Your task to perform on an android device: turn on location history Image 0: 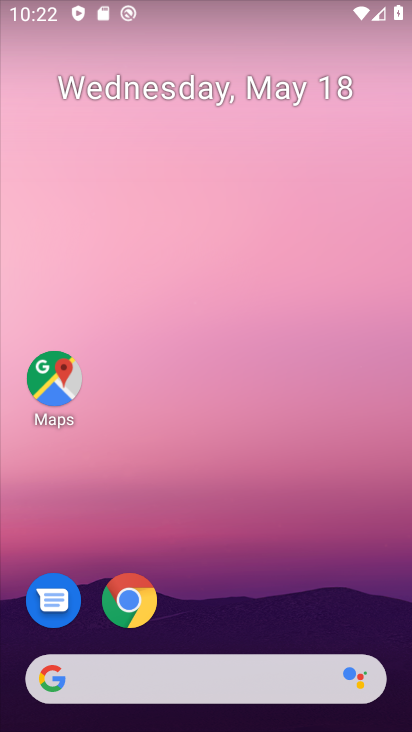
Step 0: drag from (348, 590) to (357, 87)
Your task to perform on an android device: turn on location history Image 1: 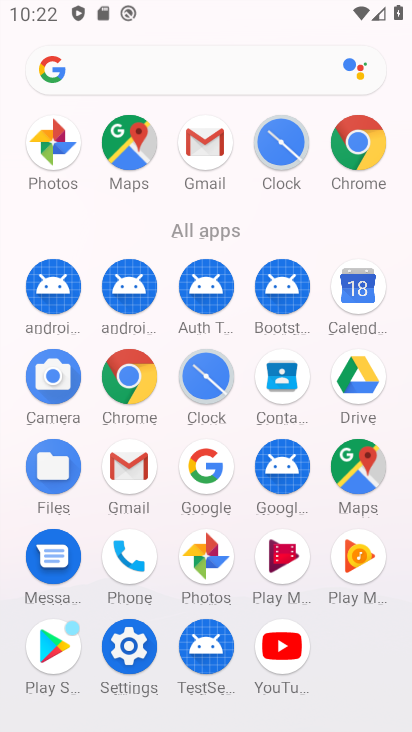
Step 1: click (129, 651)
Your task to perform on an android device: turn on location history Image 2: 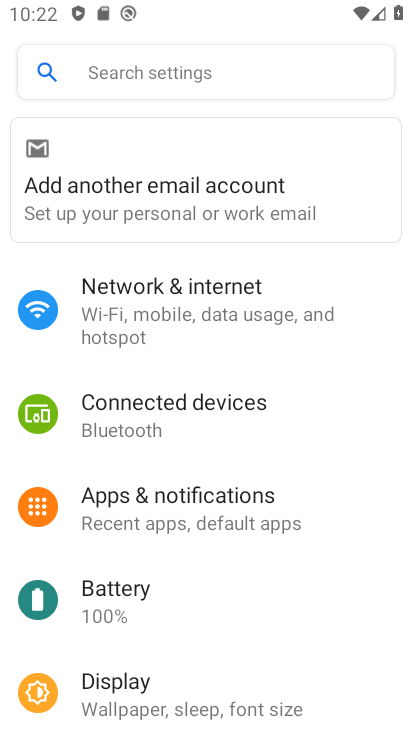
Step 2: drag from (270, 606) to (247, 168)
Your task to perform on an android device: turn on location history Image 3: 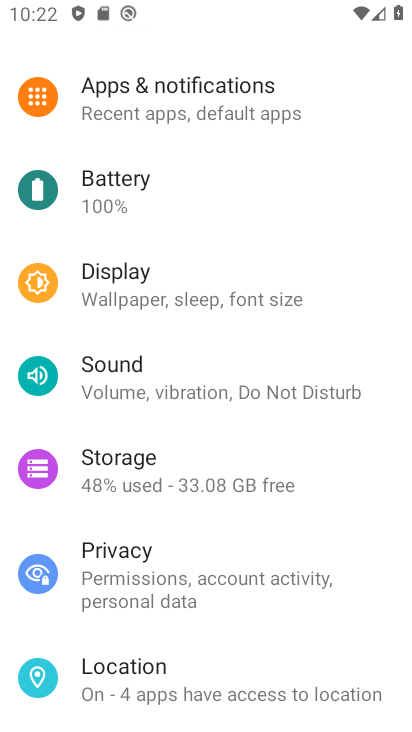
Step 3: drag from (146, 566) to (129, 364)
Your task to perform on an android device: turn on location history Image 4: 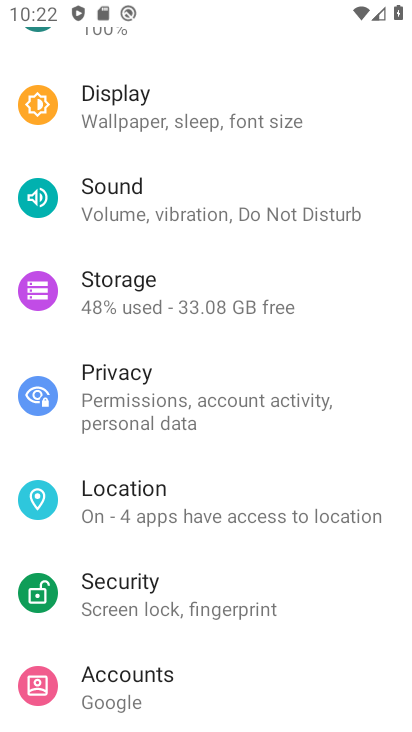
Step 4: click (150, 487)
Your task to perform on an android device: turn on location history Image 5: 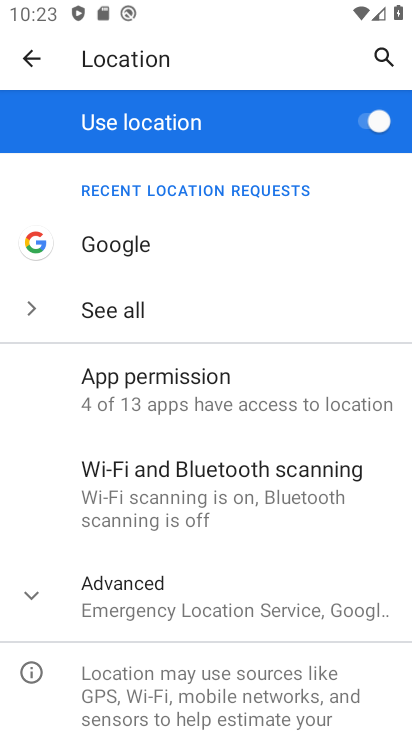
Step 5: click (169, 609)
Your task to perform on an android device: turn on location history Image 6: 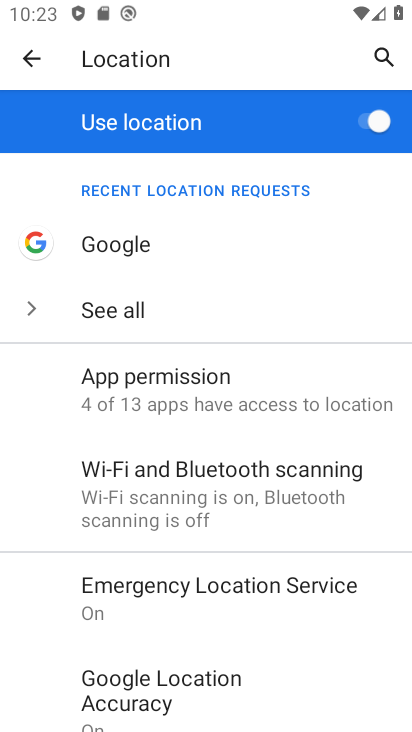
Step 6: drag from (239, 659) to (226, 373)
Your task to perform on an android device: turn on location history Image 7: 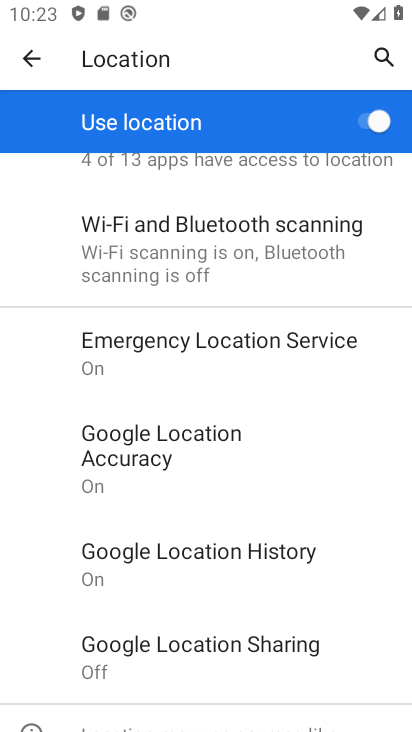
Step 7: click (225, 543)
Your task to perform on an android device: turn on location history Image 8: 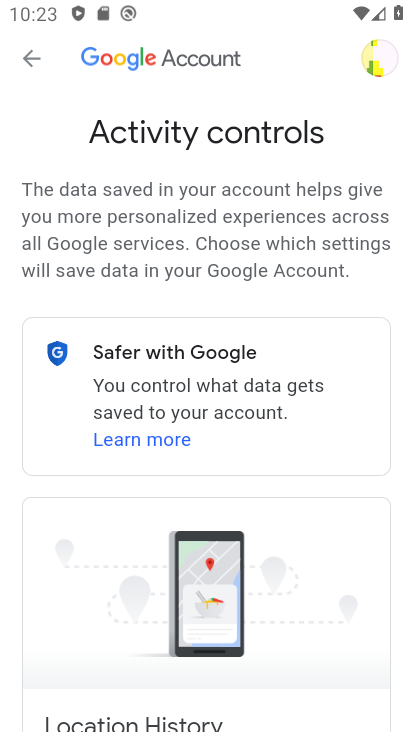
Step 8: task complete